Your task to perform on an android device: turn on wifi Image 0: 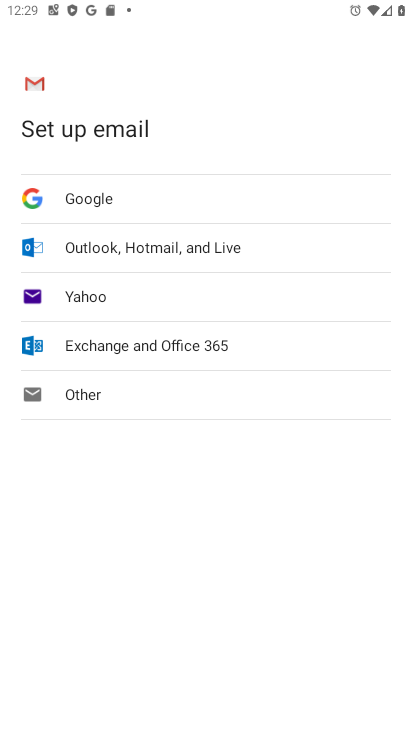
Step 0: press home button
Your task to perform on an android device: turn on wifi Image 1: 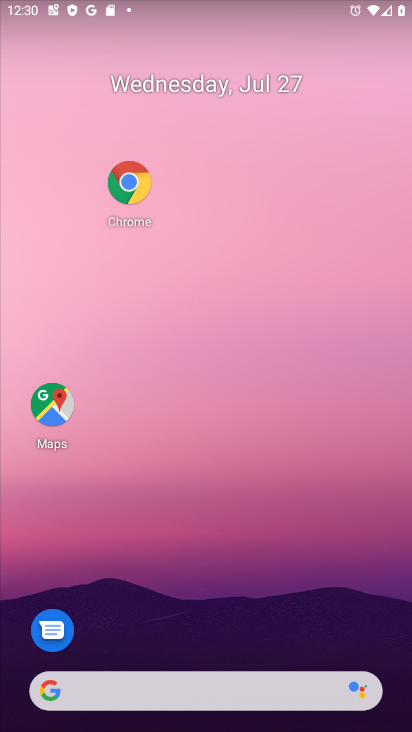
Step 1: drag from (226, 722) to (256, 109)
Your task to perform on an android device: turn on wifi Image 2: 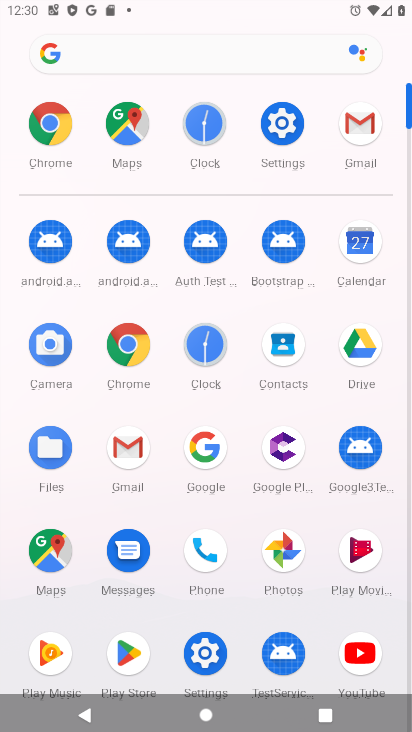
Step 2: click (290, 126)
Your task to perform on an android device: turn on wifi Image 3: 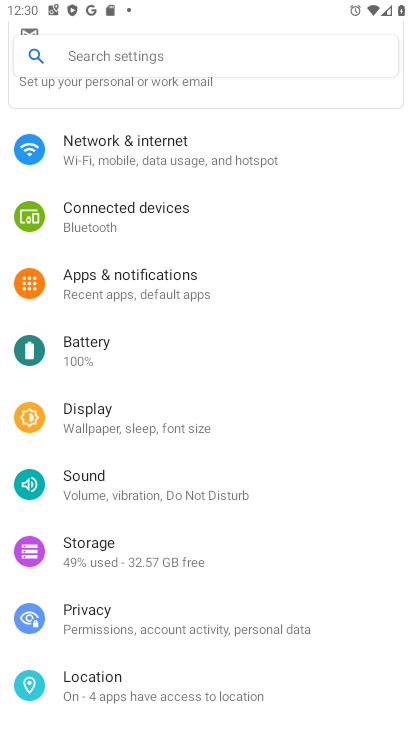
Step 3: click (226, 156)
Your task to perform on an android device: turn on wifi Image 4: 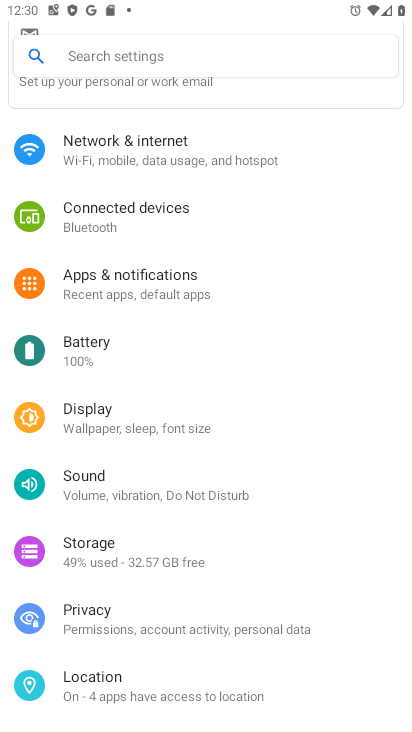
Step 4: click (226, 156)
Your task to perform on an android device: turn on wifi Image 5: 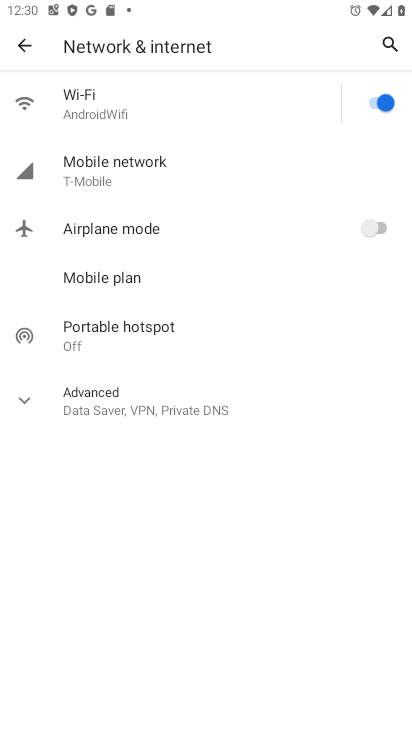
Step 5: task complete